Your task to perform on an android device: Open the map Image 0: 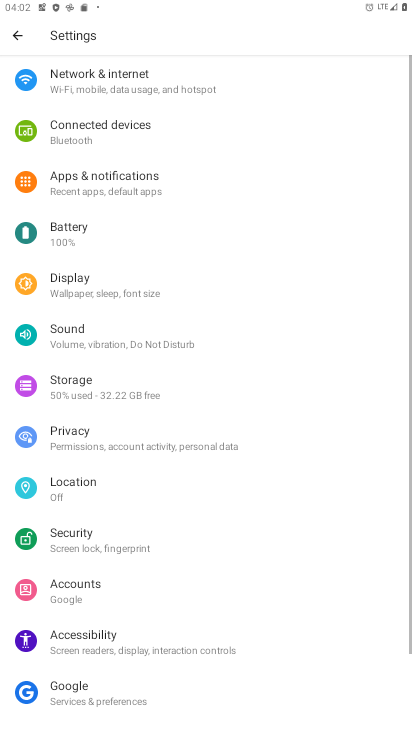
Step 0: press home button
Your task to perform on an android device: Open the map Image 1: 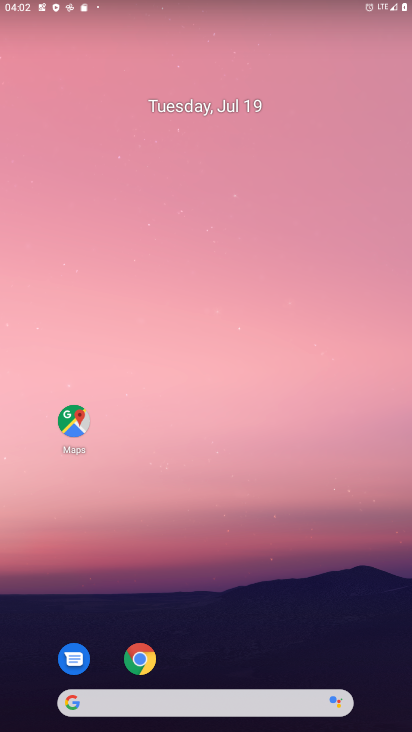
Step 1: drag from (280, 610) to (291, 181)
Your task to perform on an android device: Open the map Image 2: 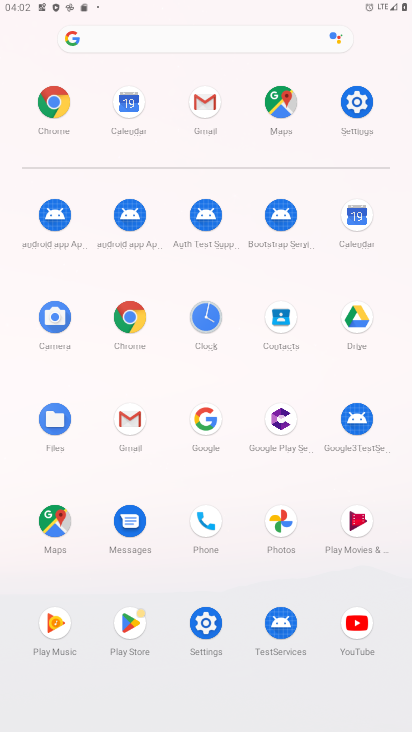
Step 2: click (57, 516)
Your task to perform on an android device: Open the map Image 3: 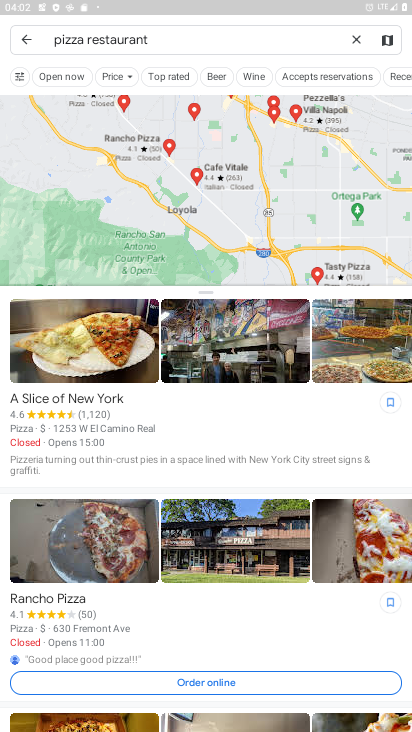
Step 3: task complete